Your task to perform on an android device: change the upload size in google photos Image 0: 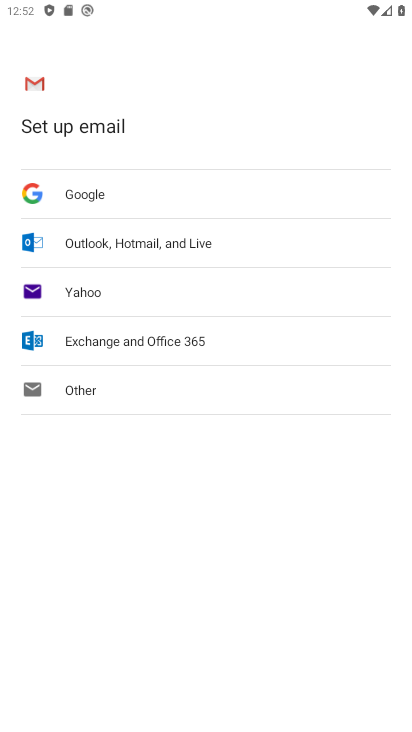
Step 0: press home button
Your task to perform on an android device: change the upload size in google photos Image 1: 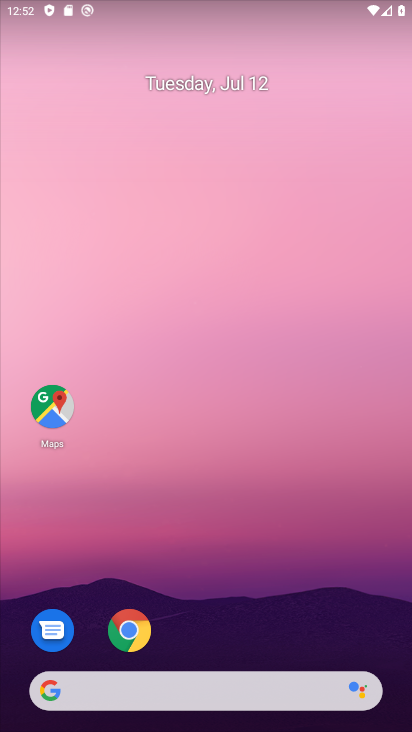
Step 1: drag from (352, 622) to (310, 83)
Your task to perform on an android device: change the upload size in google photos Image 2: 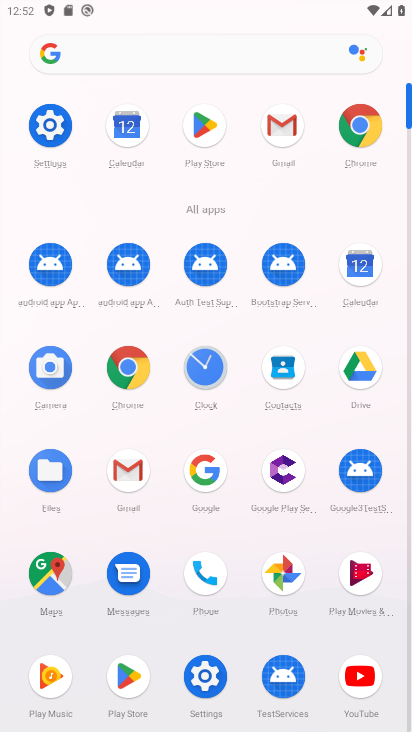
Step 2: click (281, 575)
Your task to perform on an android device: change the upload size in google photos Image 3: 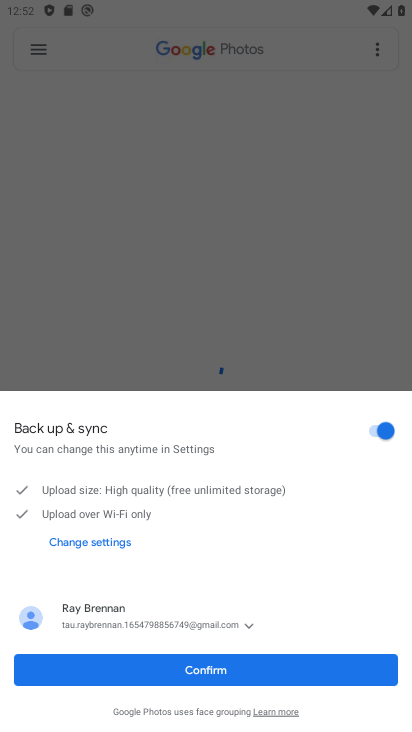
Step 3: click (205, 668)
Your task to perform on an android device: change the upload size in google photos Image 4: 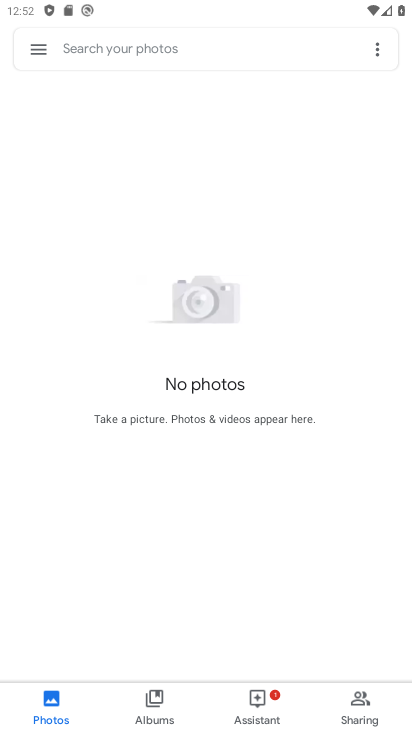
Step 4: click (38, 47)
Your task to perform on an android device: change the upload size in google photos Image 5: 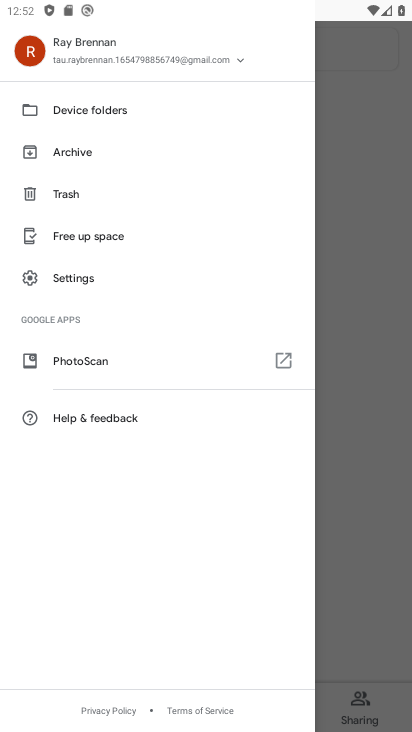
Step 5: click (75, 281)
Your task to perform on an android device: change the upload size in google photos Image 6: 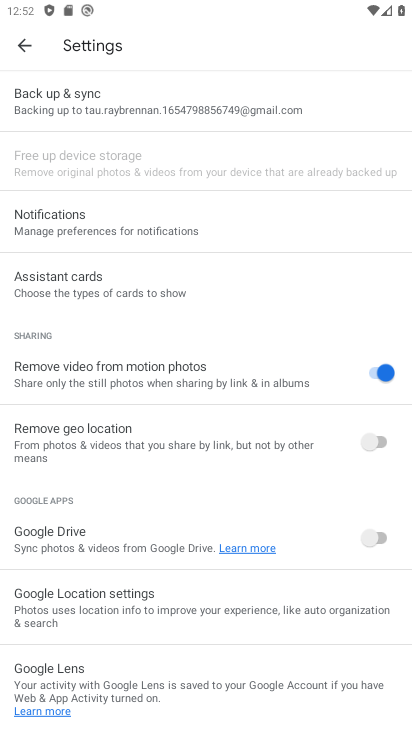
Step 6: click (72, 107)
Your task to perform on an android device: change the upload size in google photos Image 7: 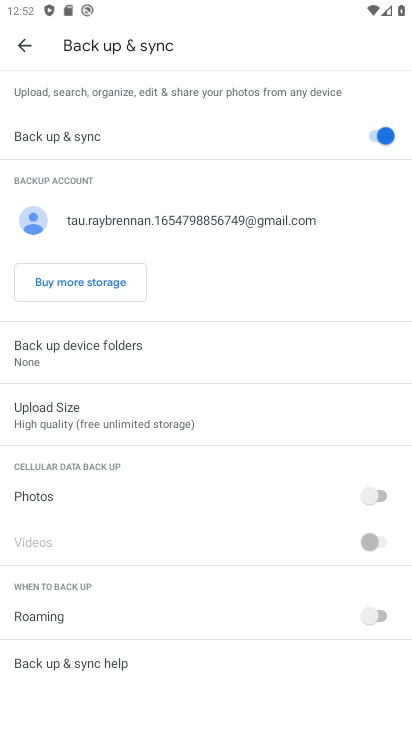
Step 7: click (48, 403)
Your task to perform on an android device: change the upload size in google photos Image 8: 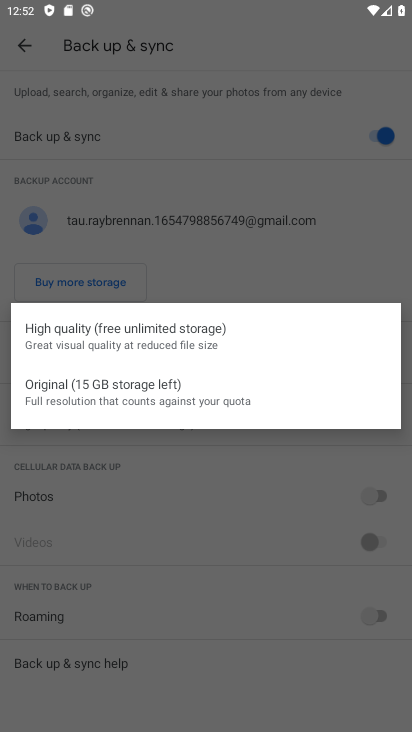
Step 8: click (123, 539)
Your task to perform on an android device: change the upload size in google photos Image 9: 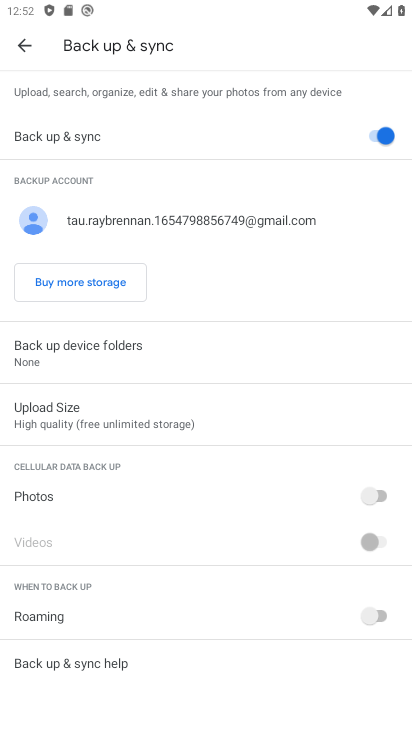
Step 9: click (50, 411)
Your task to perform on an android device: change the upload size in google photos Image 10: 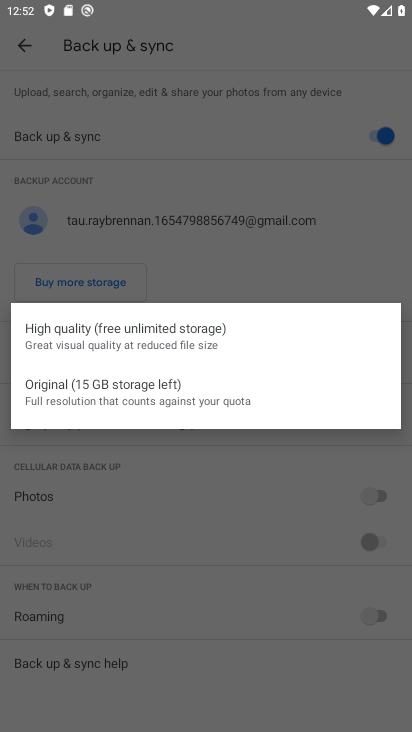
Step 10: click (81, 394)
Your task to perform on an android device: change the upload size in google photos Image 11: 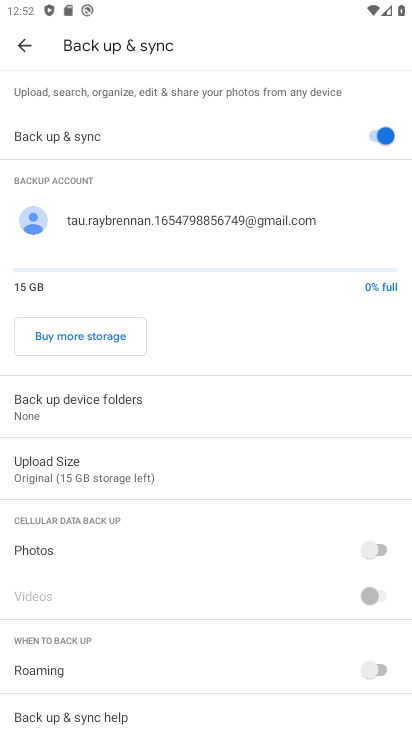
Step 11: task complete